Your task to perform on an android device: Open Android settings Image 0: 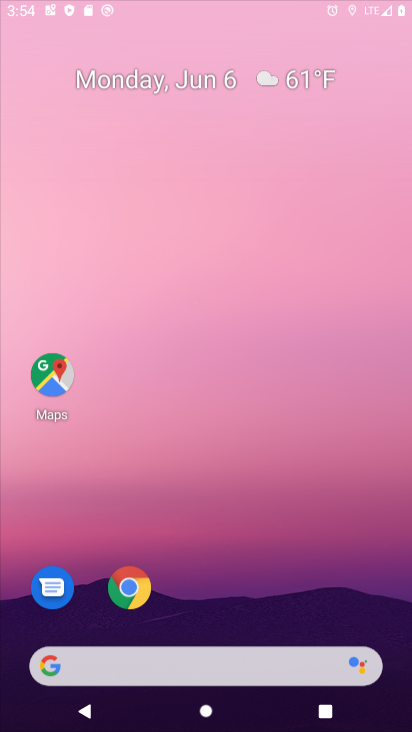
Step 0: drag from (181, 282) to (169, 176)
Your task to perform on an android device: Open Android settings Image 1: 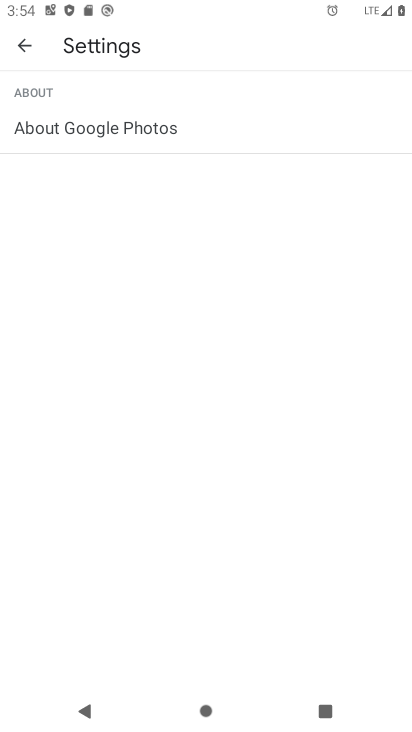
Step 1: press home button
Your task to perform on an android device: Open Android settings Image 2: 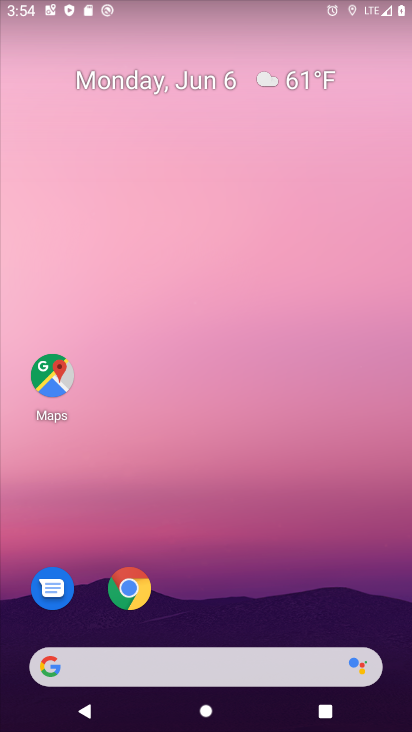
Step 2: drag from (241, 615) to (212, 111)
Your task to perform on an android device: Open Android settings Image 3: 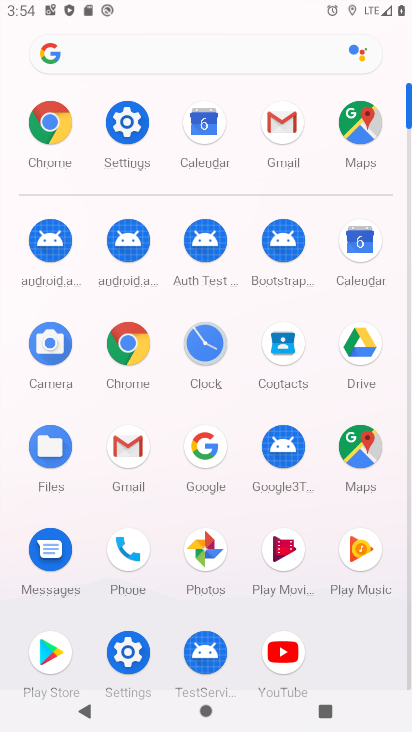
Step 3: click (130, 657)
Your task to perform on an android device: Open Android settings Image 4: 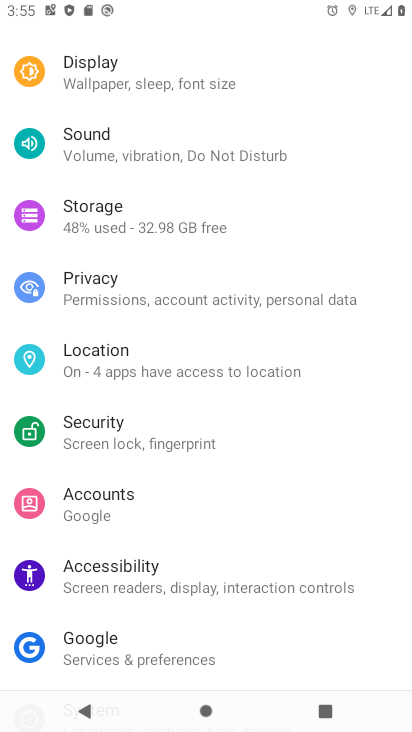
Step 4: task complete